Your task to perform on an android device: toggle airplane mode Image 0: 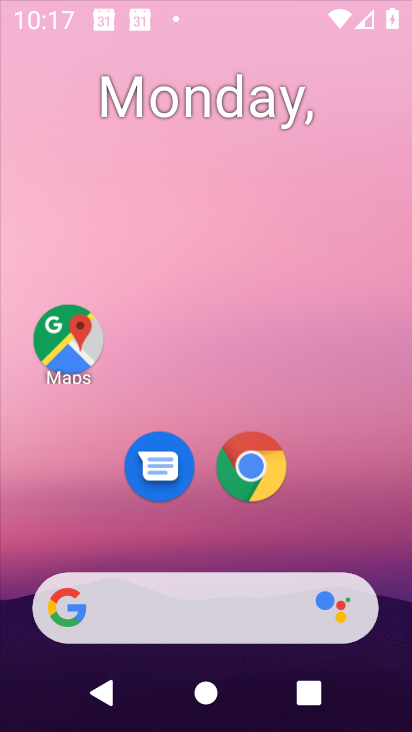
Step 0: click (259, 345)
Your task to perform on an android device: toggle airplane mode Image 1: 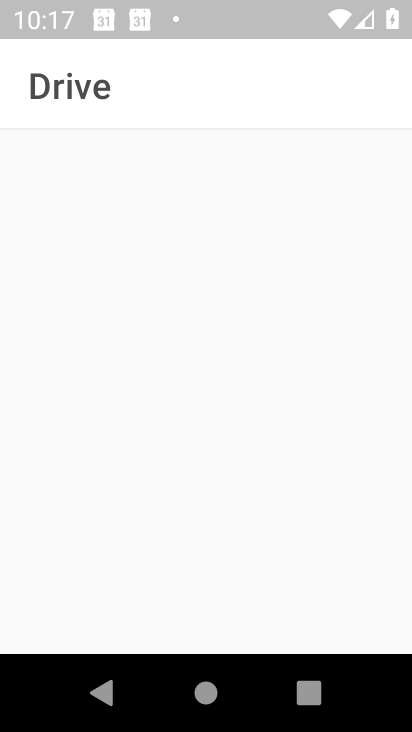
Step 1: press back button
Your task to perform on an android device: toggle airplane mode Image 2: 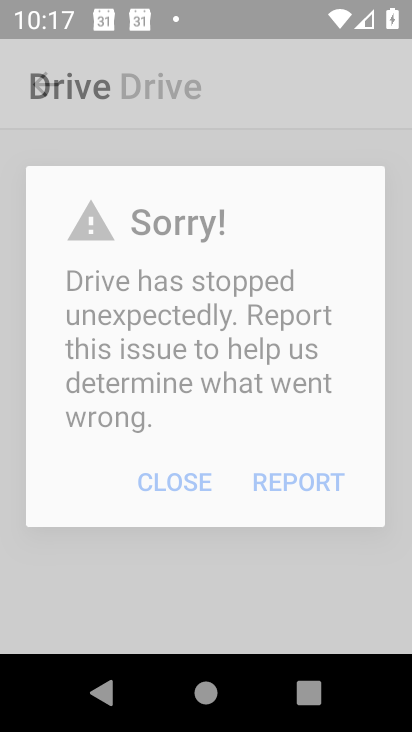
Step 2: press back button
Your task to perform on an android device: toggle airplane mode Image 3: 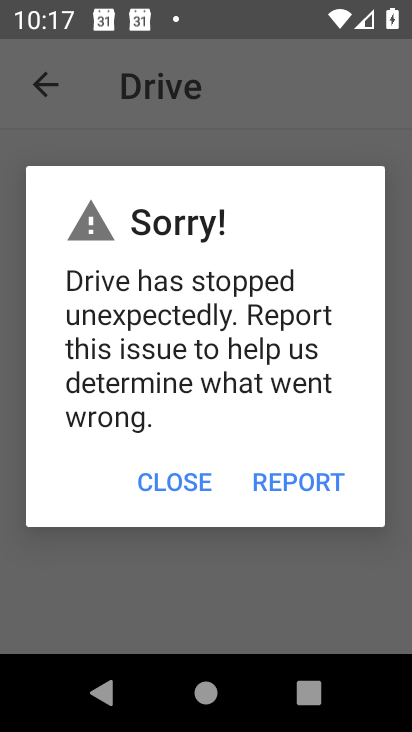
Step 3: press back button
Your task to perform on an android device: toggle airplane mode Image 4: 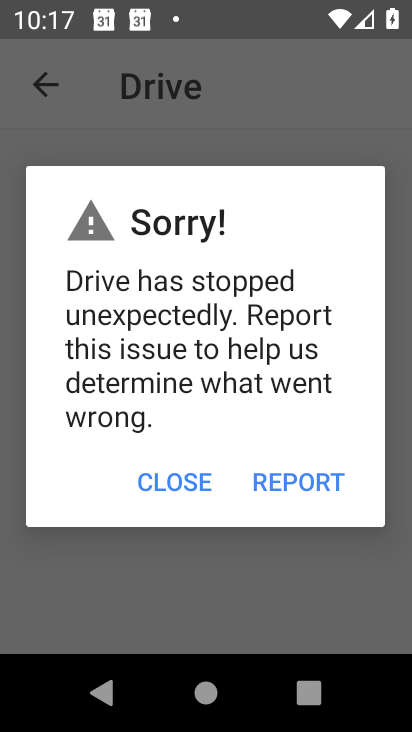
Step 4: press home button
Your task to perform on an android device: toggle airplane mode Image 5: 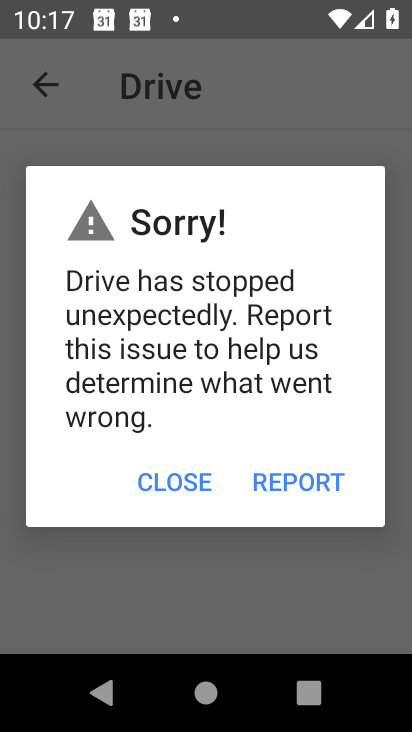
Step 5: press home button
Your task to perform on an android device: toggle airplane mode Image 6: 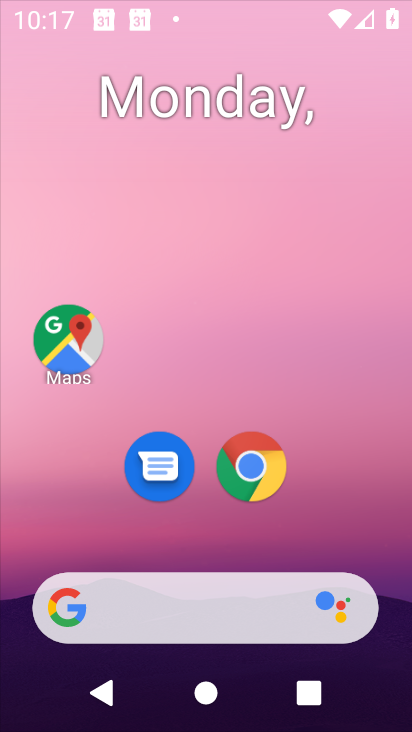
Step 6: press home button
Your task to perform on an android device: toggle airplane mode Image 7: 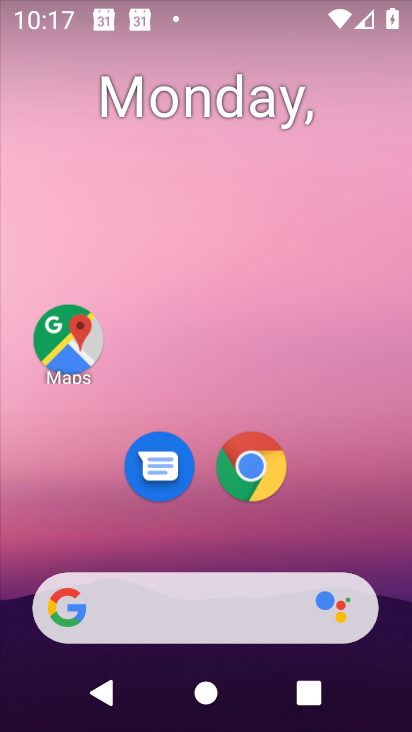
Step 7: drag from (348, 479) to (255, 11)
Your task to perform on an android device: toggle airplane mode Image 8: 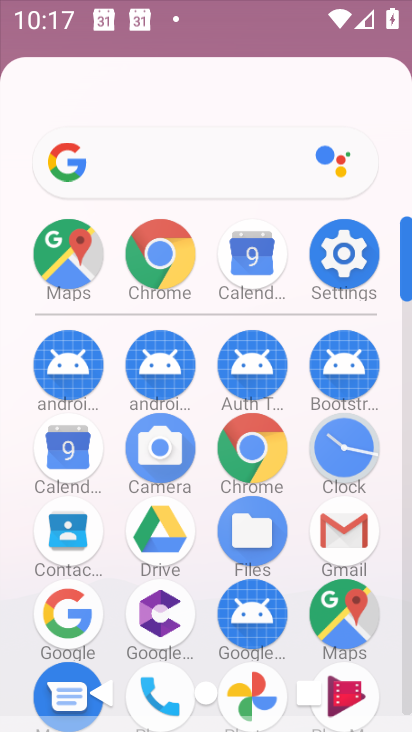
Step 8: drag from (326, 388) to (149, 33)
Your task to perform on an android device: toggle airplane mode Image 9: 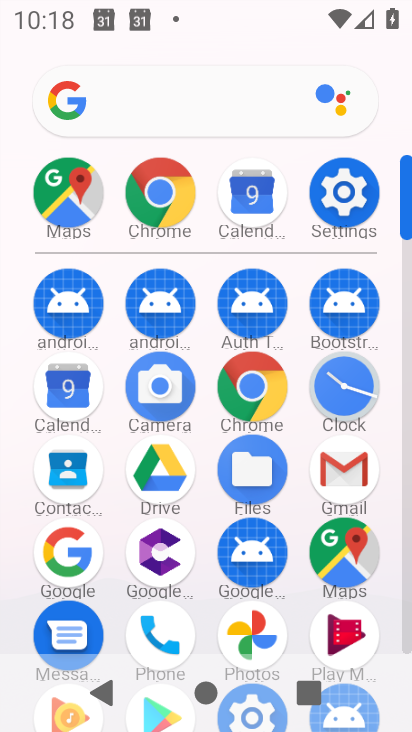
Step 9: click (355, 191)
Your task to perform on an android device: toggle airplane mode Image 10: 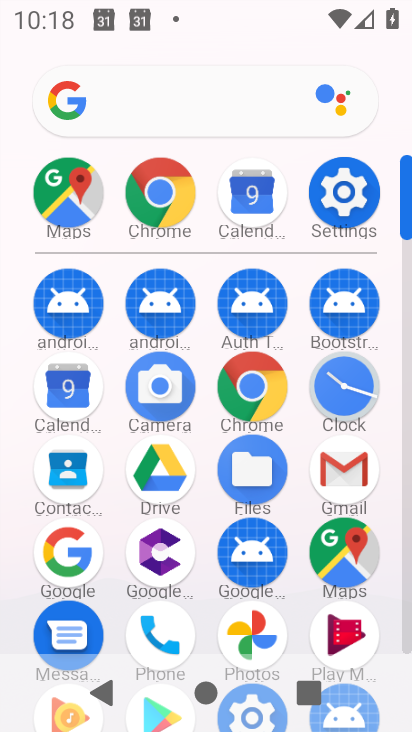
Step 10: click (352, 198)
Your task to perform on an android device: toggle airplane mode Image 11: 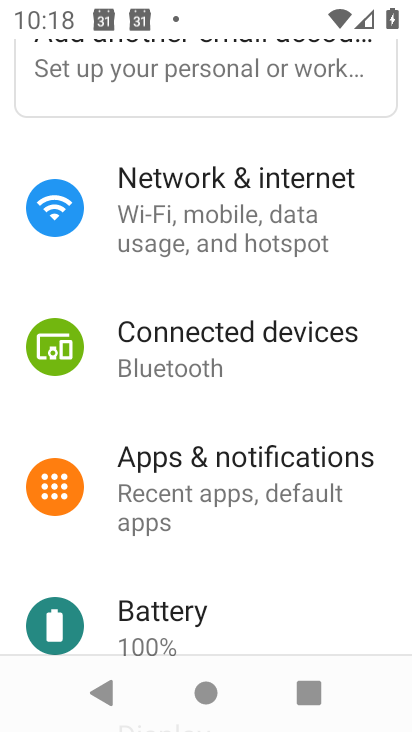
Step 11: click (226, 229)
Your task to perform on an android device: toggle airplane mode Image 12: 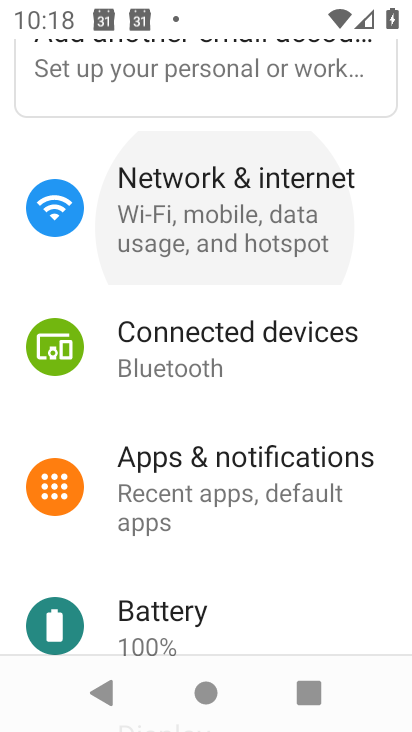
Step 12: click (225, 228)
Your task to perform on an android device: toggle airplane mode Image 13: 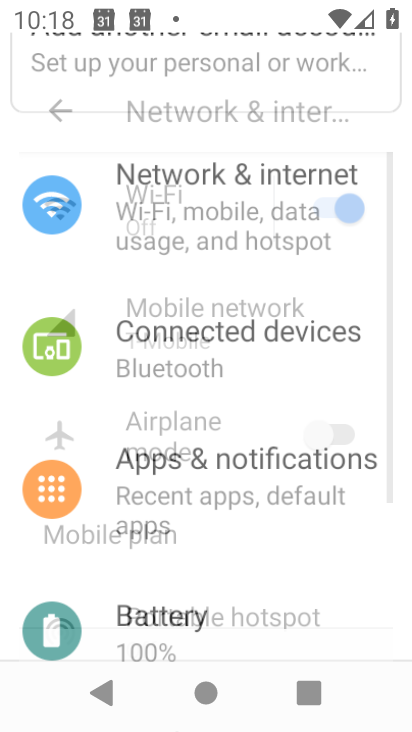
Step 13: click (225, 228)
Your task to perform on an android device: toggle airplane mode Image 14: 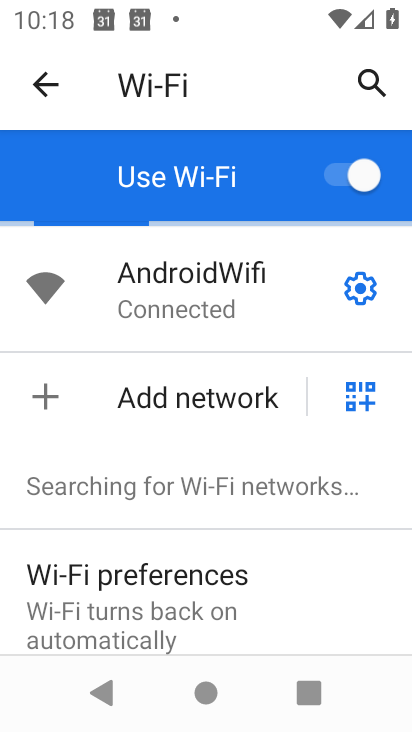
Step 14: click (41, 83)
Your task to perform on an android device: toggle airplane mode Image 15: 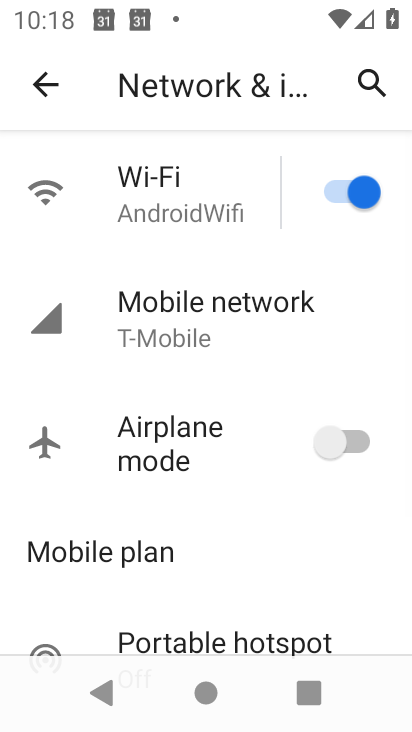
Step 15: click (338, 441)
Your task to perform on an android device: toggle airplane mode Image 16: 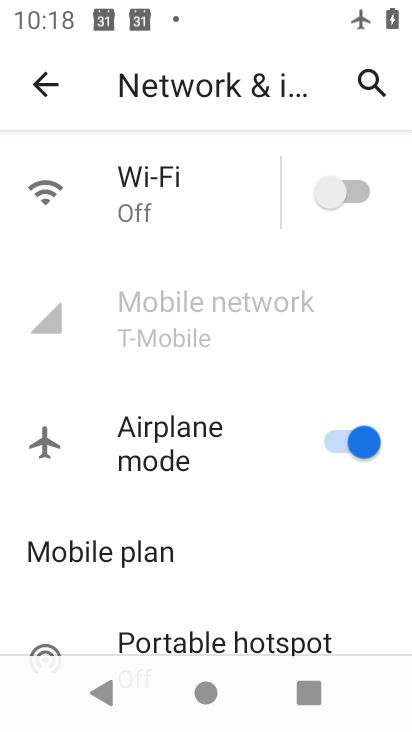
Step 16: task complete